Your task to perform on an android device: turn on the 24-hour format for clock Image 0: 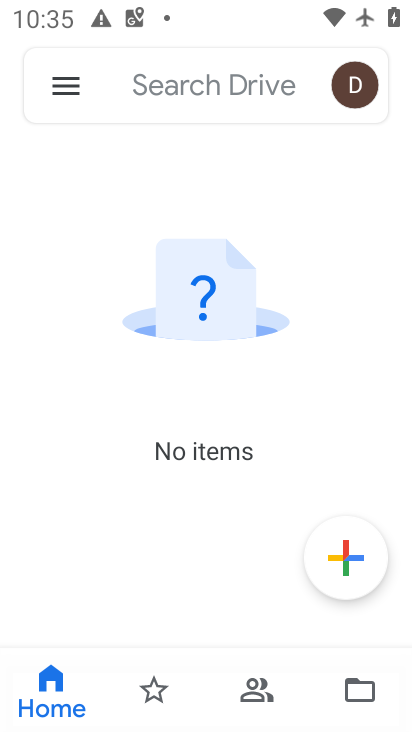
Step 0: press home button
Your task to perform on an android device: turn on the 24-hour format for clock Image 1: 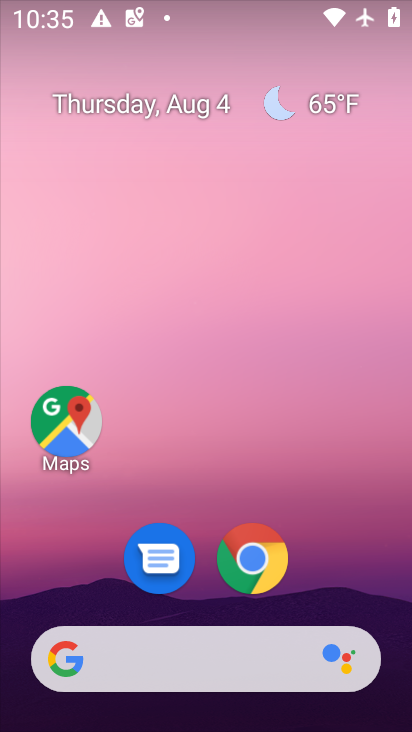
Step 1: drag from (353, 575) to (190, 71)
Your task to perform on an android device: turn on the 24-hour format for clock Image 2: 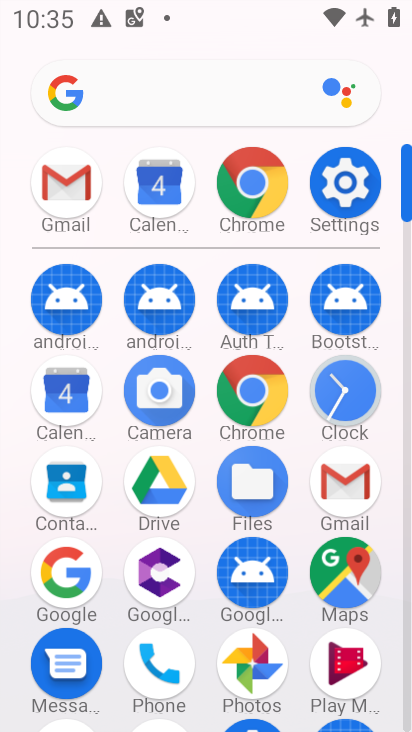
Step 2: click (353, 407)
Your task to perform on an android device: turn on the 24-hour format for clock Image 3: 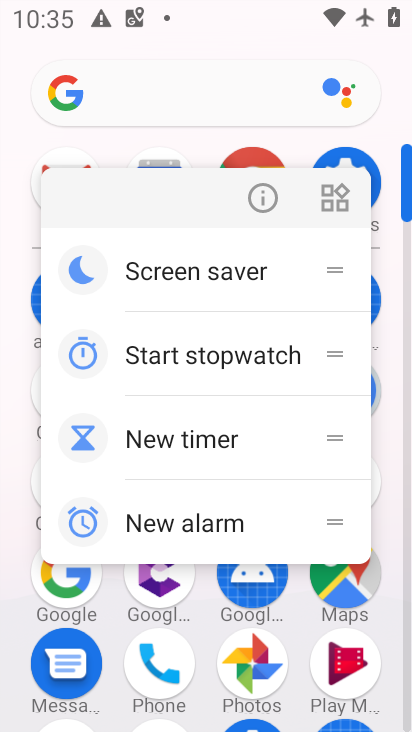
Step 3: click (390, 387)
Your task to perform on an android device: turn on the 24-hour format for clock Image 4: 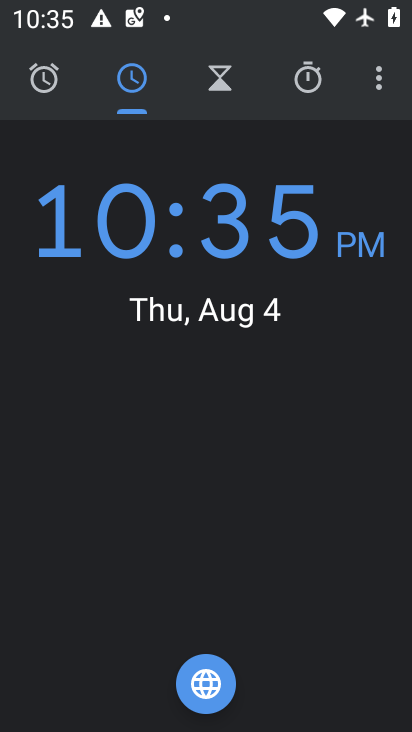
Step 4: click (377, 75)
Your task to perform on an android device: turn on the 24-hour format for clock Image 5: 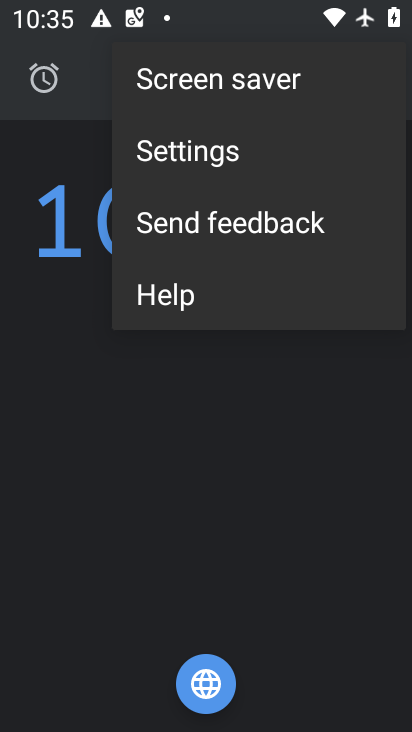
Step 5: click (236, 153)
Your task to perform on an android device: turn on the 24-hour format for clock Image 6: 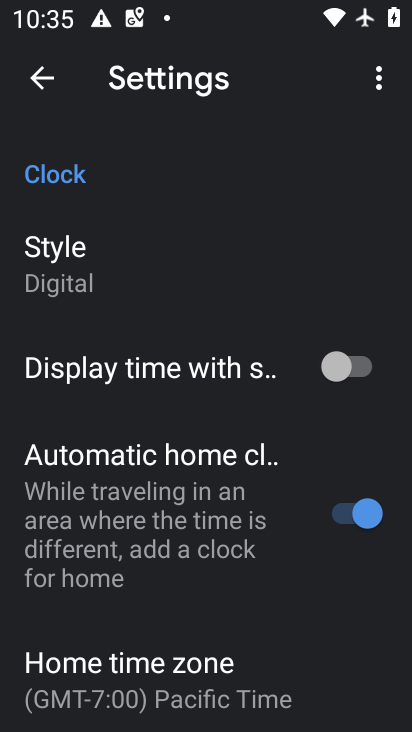
Step 6: drag from (236, 603) to (245, 207)
Your task to perform on an android device: turn on the 24-hour format for clock Image 7: 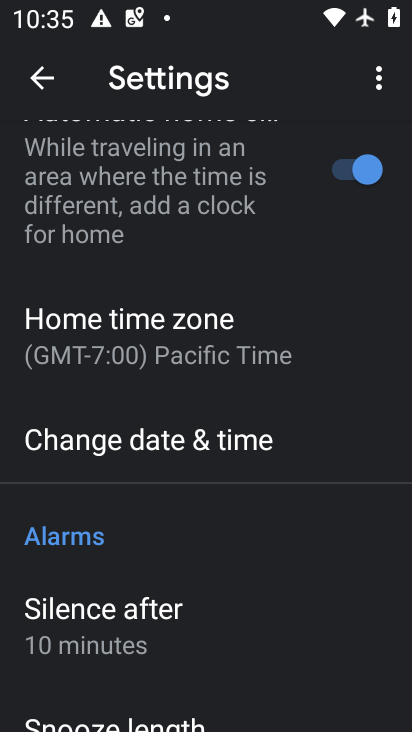
Step 7: click (162, 440)
Your task to perform on an android device: turn on the 24-hour format for clock Image 8: 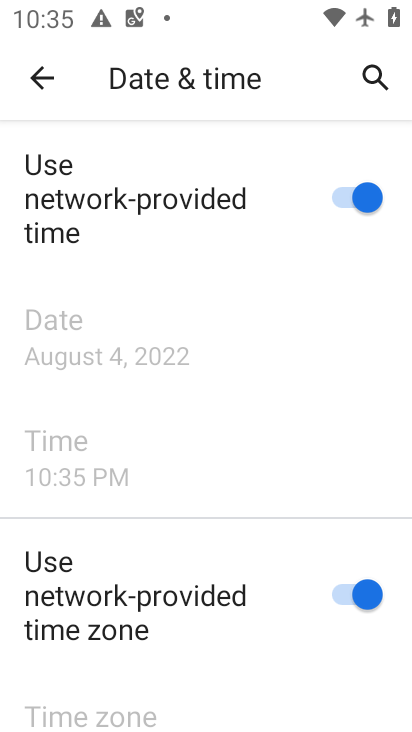
Step 8: drag from (262, 644) to (259, 262)
Your task to perform on an android device: turn on the 24-hour format for clock Image 9: 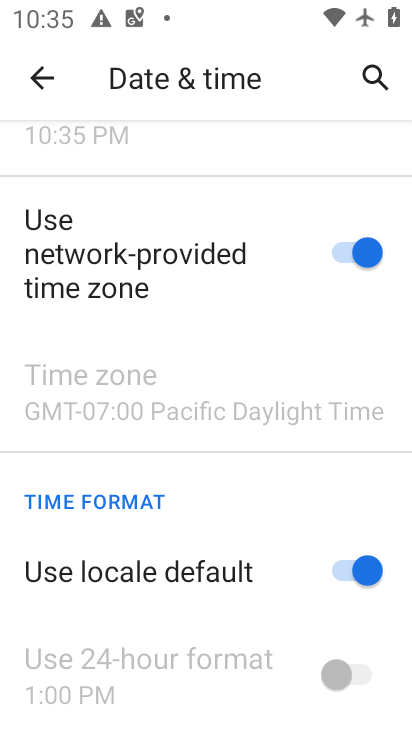
Step 9: click (372, 587)
Your task to perform on an android device: turn on the 24-hour format for clock Image 10: 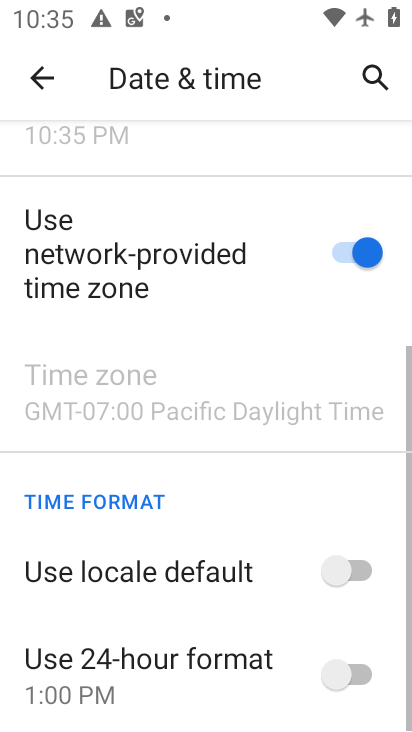
Step 10: click (351, 670)
Your task to perform on an android device: turn on the 24-hour format for clock Image 11: 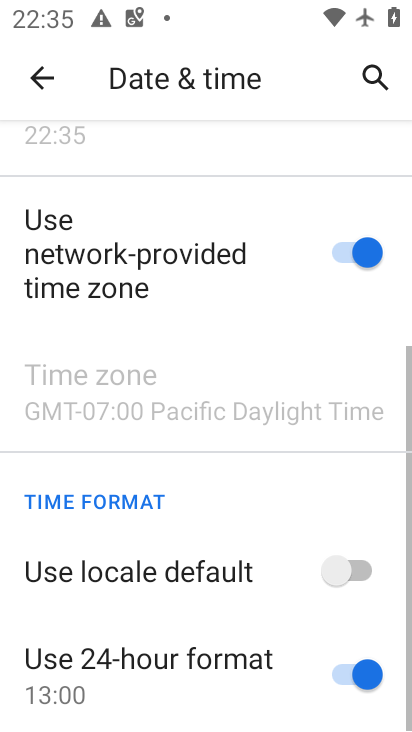
Step 11: task complete